Your task to perform on an android device: find which apps use the phone's location Image 0: 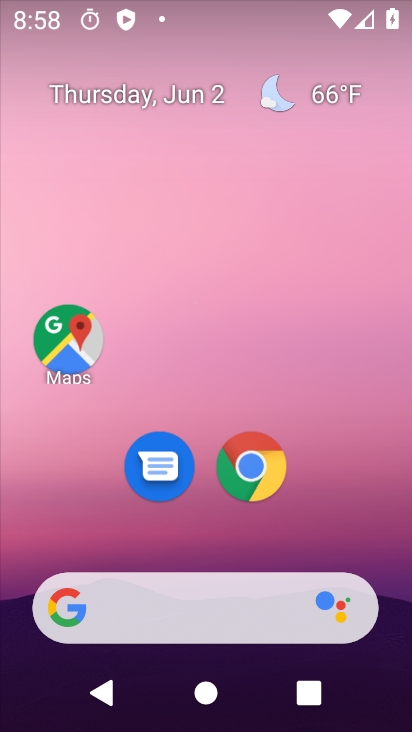
Step 0: drag from (21, 627) to (315, 195)
Your task to perform on an android device: find which apps use the phone's location Image 1: 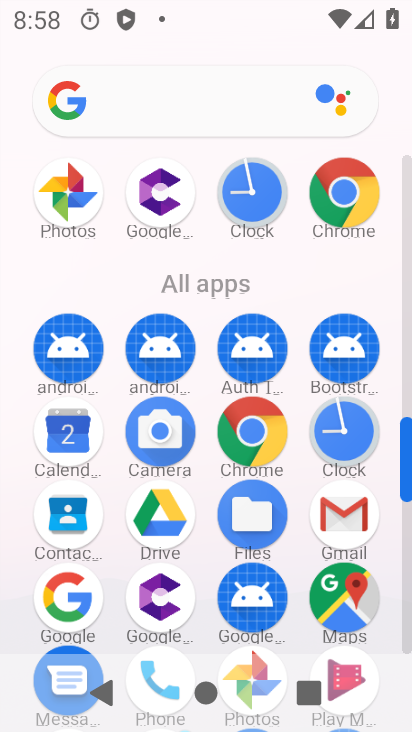
Step 1: drag from (85, 509) to (408, 166)
Your task to perform on an android device: find which apps use the phone's location Image 2: 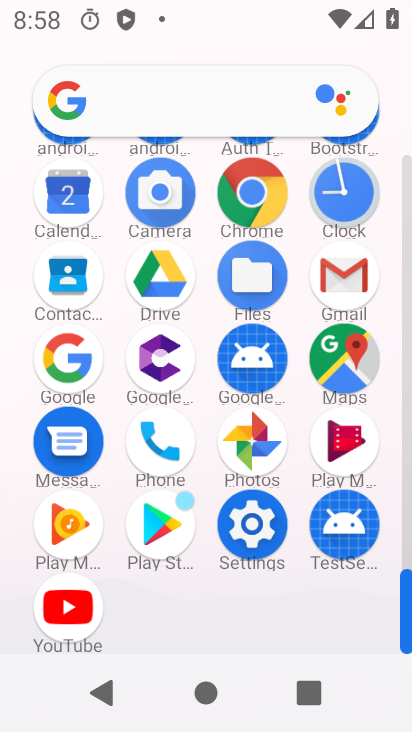
Step 2: click (247, 604)
Your task to perform on an android device: find which apps use the phone's location Image 3: 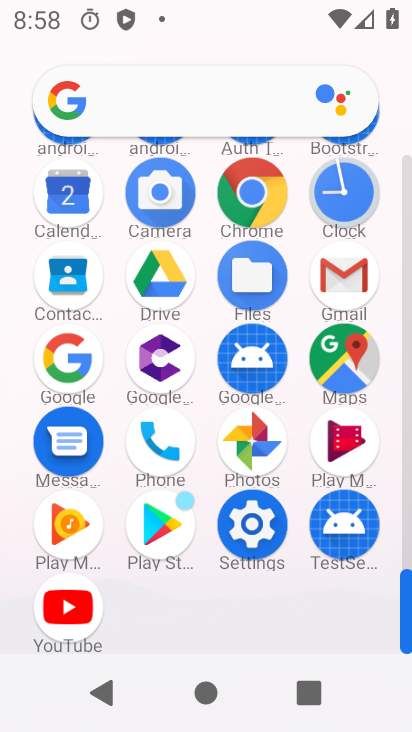
Step 3: click (263, 530)
Your task to perform on an android device: find which apps use the phone's location Image 4: 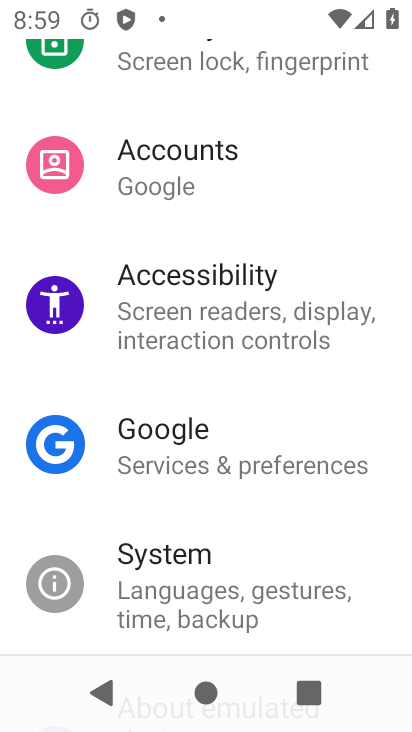
Step 4: drag from (162, 117) to (187, 619)
Your task to perform on an android device: find which apps use the phone's location Image 5: 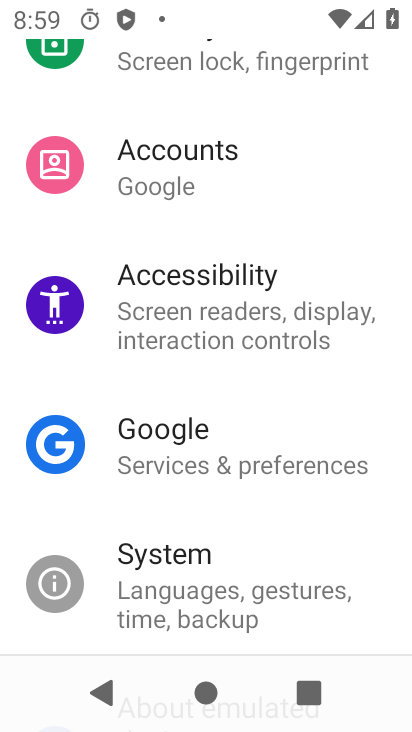
Step 5: drag from (222, 142) to (273, 593)
Your task to perform on an android device: find which apps use the phone's location Image 6: 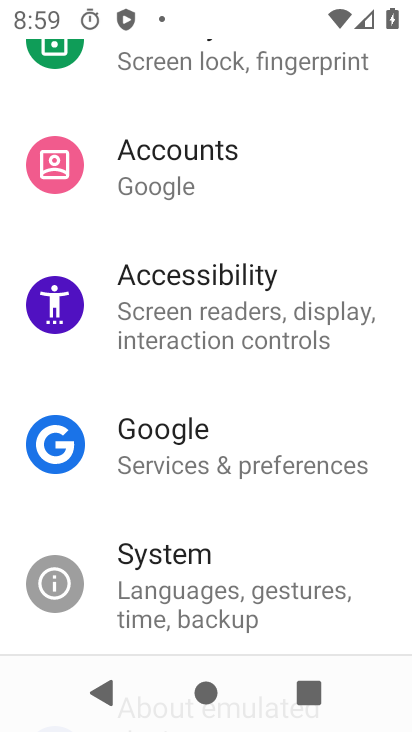
Step 6: drag from (33, 202) to (74, 731)
Your task to perform on an android device: find which apps use the phone's location Image 7: 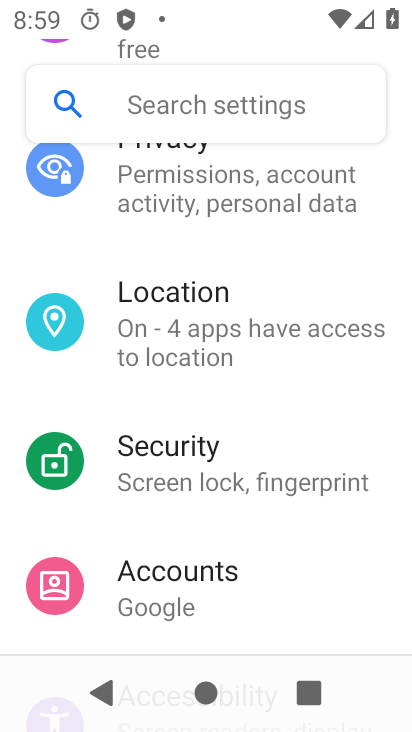
Step 7: click (135, 325)
Your task to perform on an android device: find which apps use the phone's location Image 8: 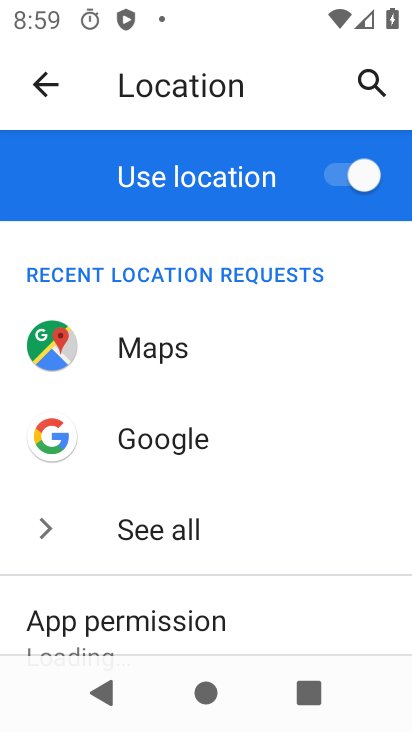
Step 8: click (150, 625)
Your task to perform on an android device: find which apps use the phone's location Image 9: 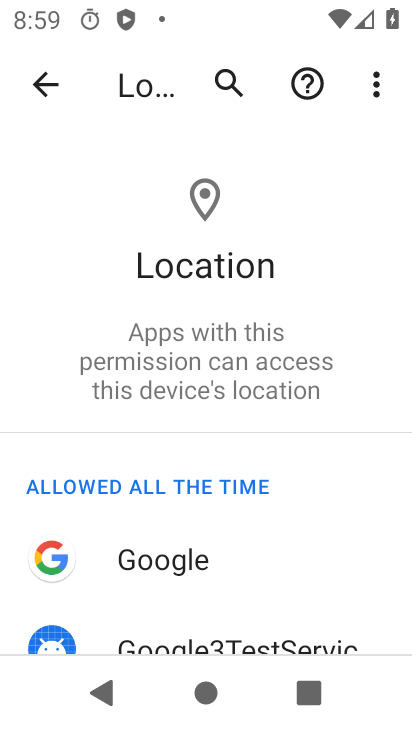
Step 9: task complete